Your task to perform on an android device: check google app version Image 0: 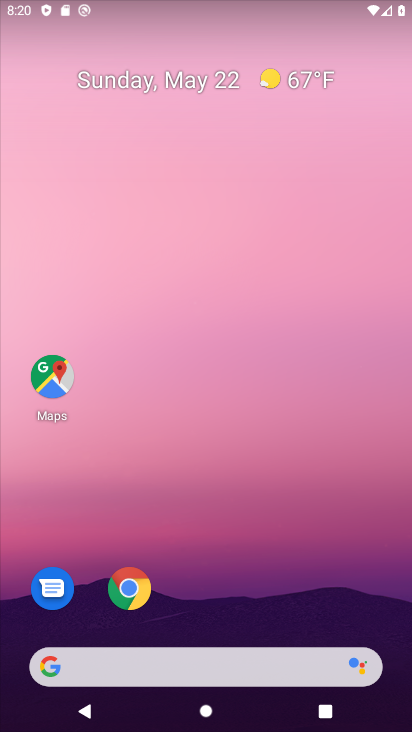
Step 0: drag from (241, 613) to (252, 264)
Your task to perform on an android device: check google app version Image 1: 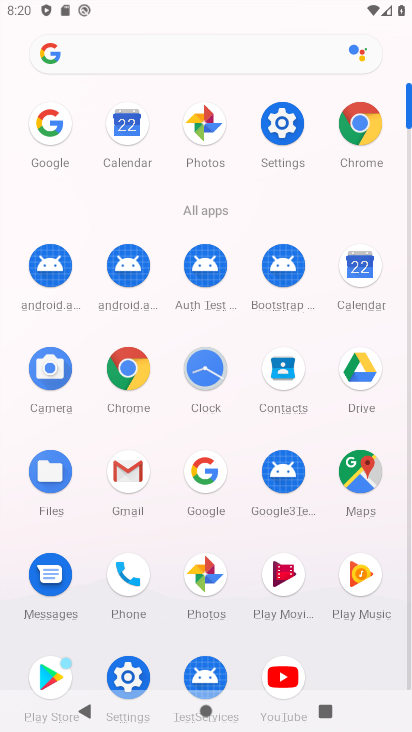
Step 1: click (58, 118)
Your task to perform on an android device: check google app version Image 2: 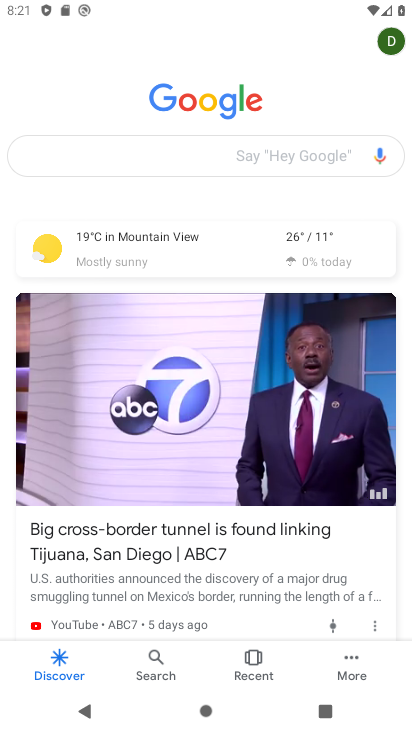
Step 2: click (367, 661)
Your task to perform on an android device: check google app version Image 3: 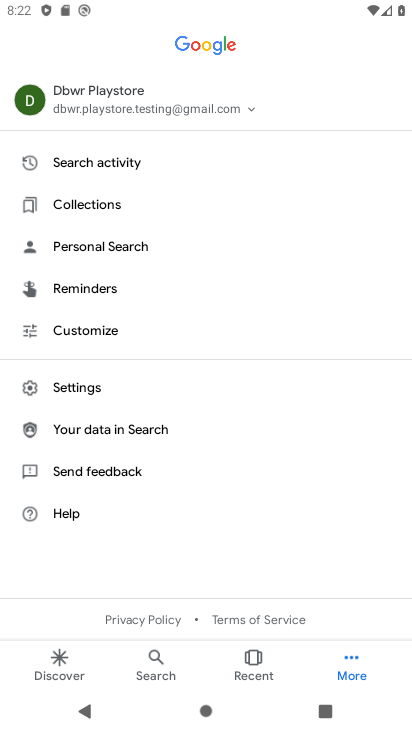
Step 3: click (71, 392)
Your task to perform on an android device: check google app version Image 4: 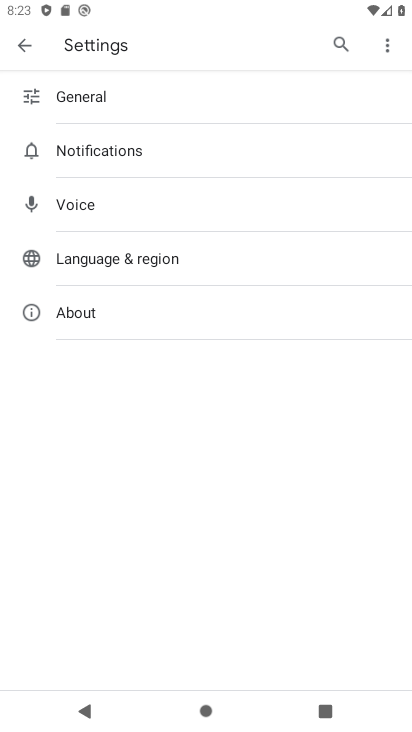
Step 4: click (112, 309)
Your task to perform on an android device: check google app version Image 5: 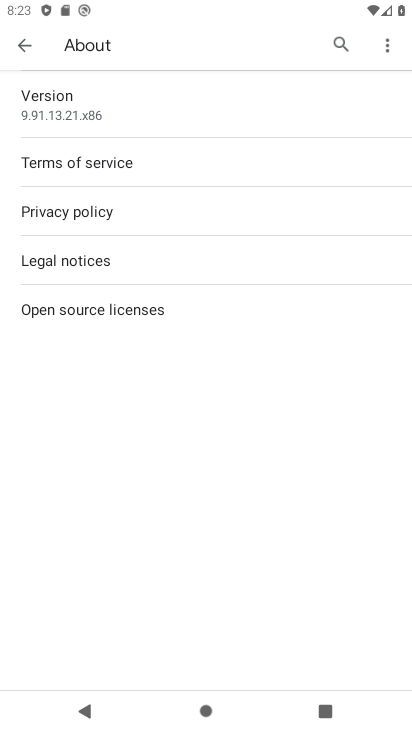
Step 5: click (89, 119)
Your task to perform on an android device: check google app version Image 6: 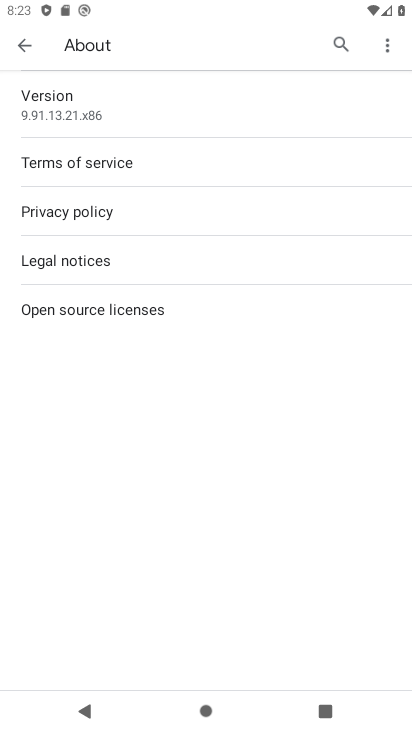
Step 6: task complete